Your task to perform on an android device: find which apps use the phone's location Image 0: 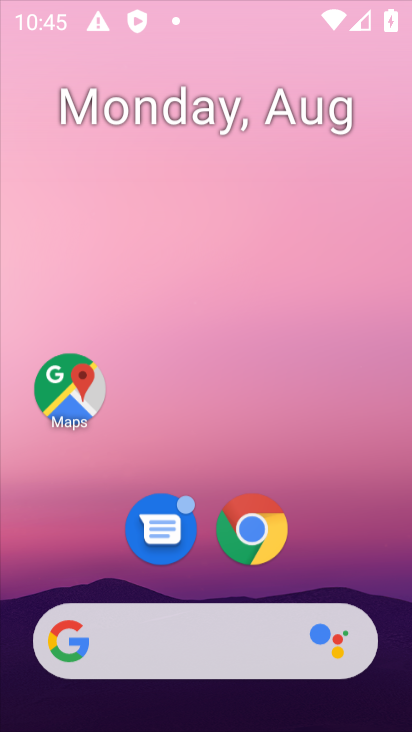
Step 0: click (225, 139)
Your task to perform on an android device: find which apps use the phone's location Image 1: 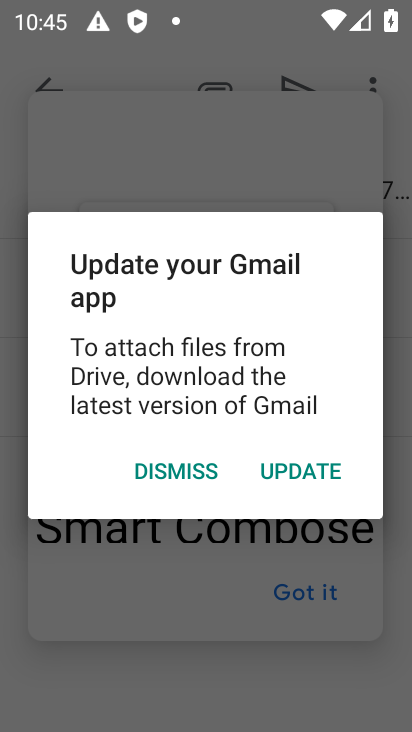
Step 1: press back button
Your task to perform on an android device: find which apps use the phone's location Image 2: 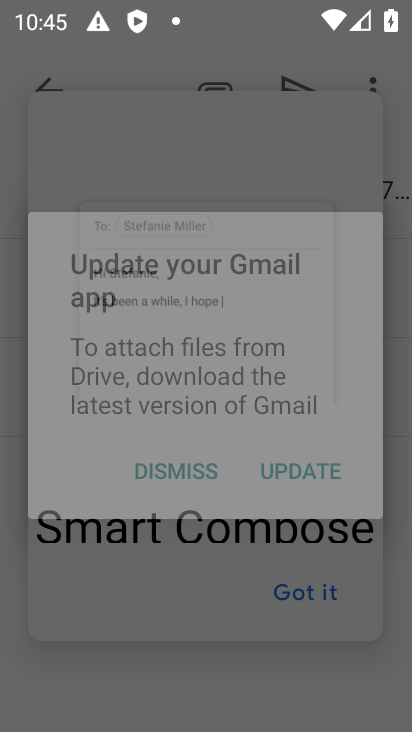
Step 2: press back button
Your task to perform on an android device: find which apps use the phone's location Image 3: 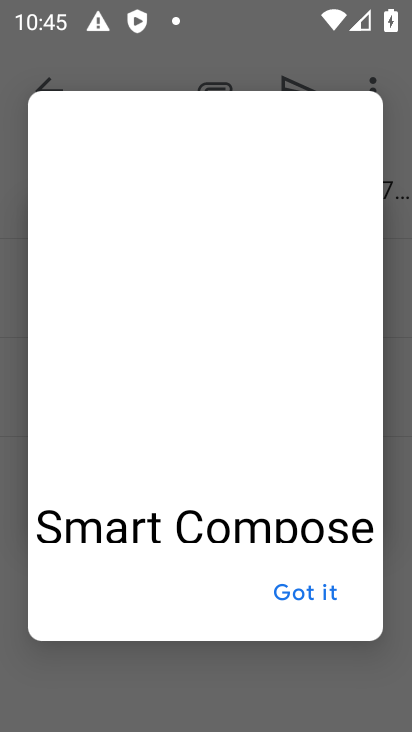
Step 3: click (294, 593)
Your task to perform on an android device: find which apps use the phone's location Image 4: 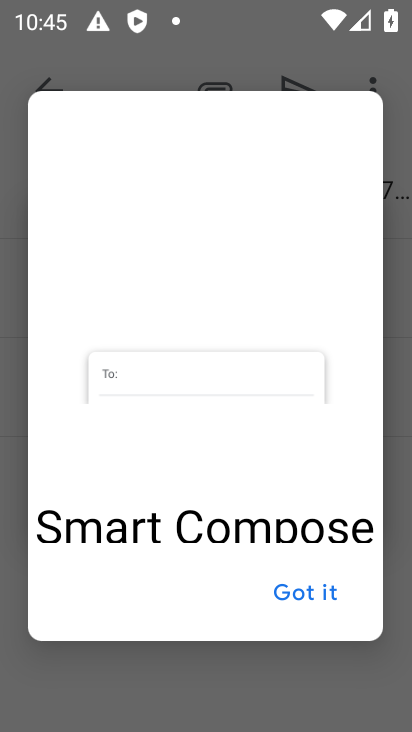
Step 4: click (301, 587)
Your task to perform on an android device: find which apps use the phone's location Image 5: 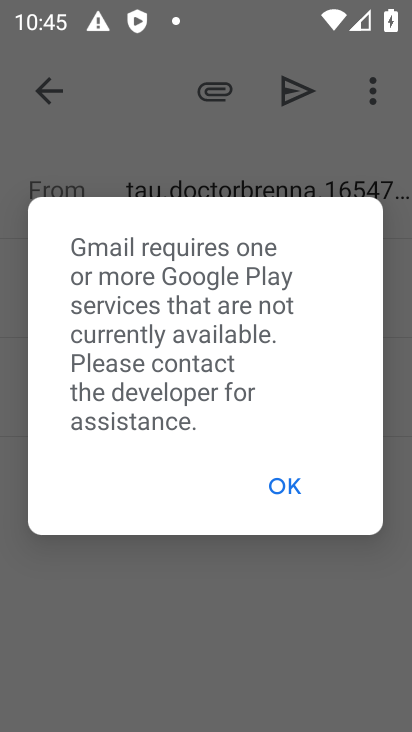
Step 5: click (285, 483)
Your task to perform on an android device: find which apps use the phone's location Image 6: 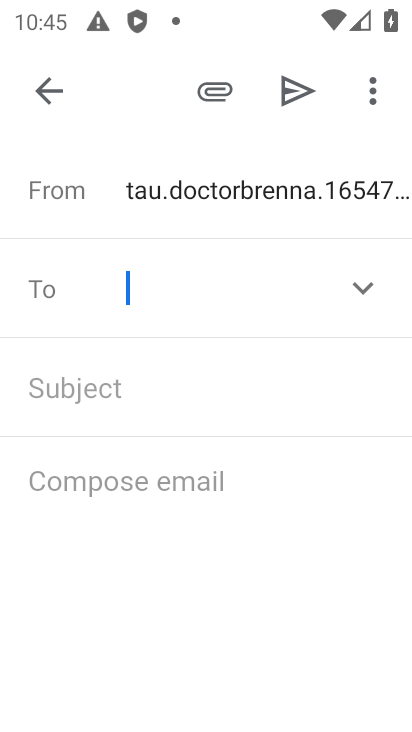
Step 6: click (62, 88)
Your task to perform on an android device: find which apps use the phone's location Image 7: 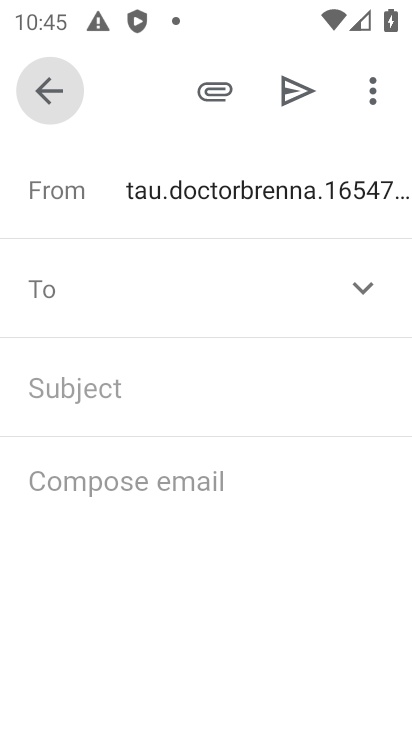
Step 7: click (56, 92)
Your task to perform on an android device: find which apps use the phone's location Image 8: 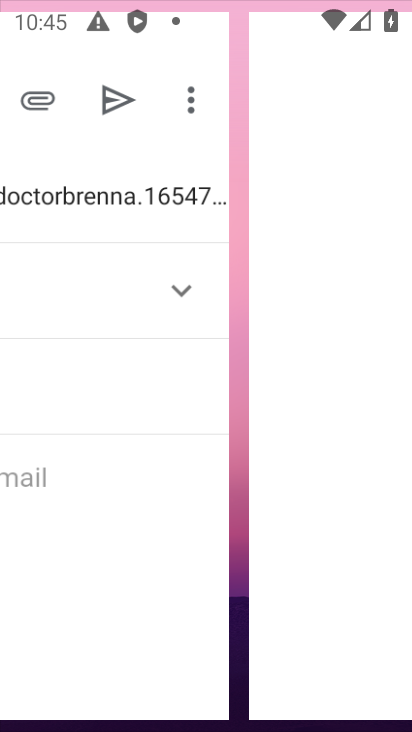
Step 8: click (55, 93)
Your task to perform on an android device: find which apps use the phone's location Image 9: 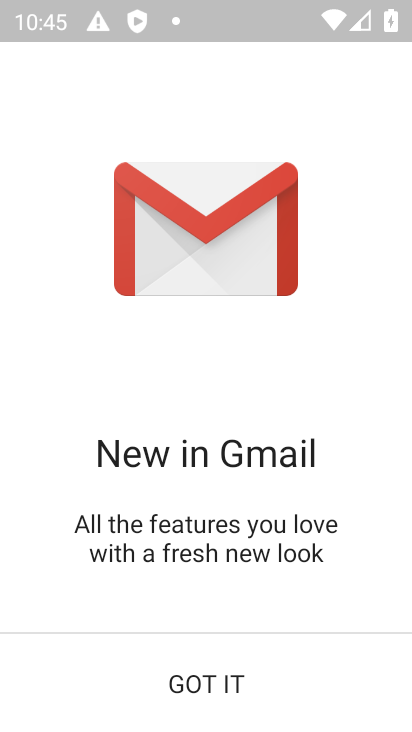
Step 9: click (164, 705)
Your task to perform on an android device: find which apps use the phone's location Image 10: 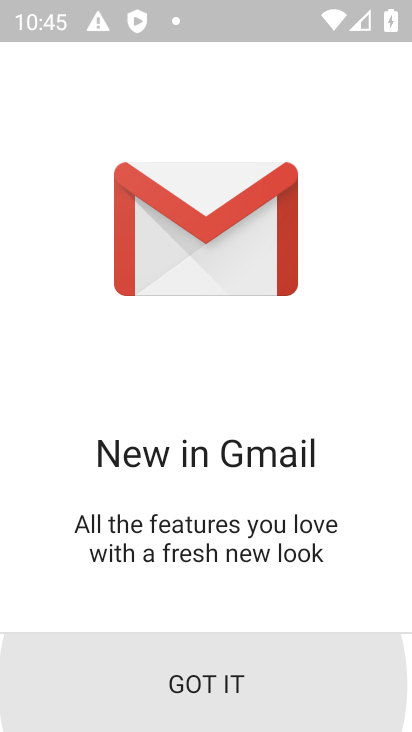
Step 10: click (187, 682)
Your task to perform on an android device: find which apps use the phone's location Image 11: 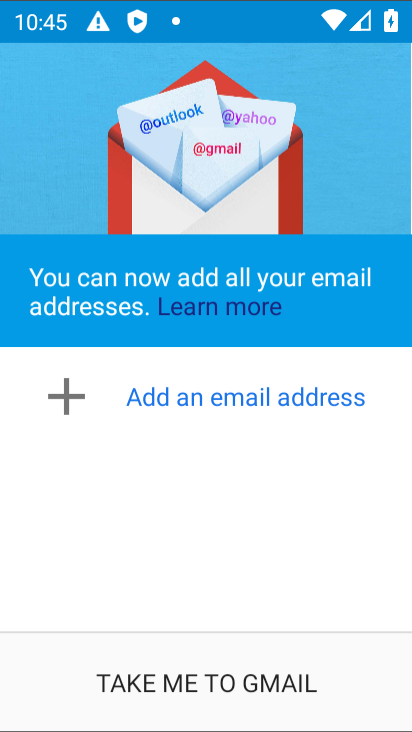
Step 11: click (193, 678)
Your task to perform on an android device: find which apps use the phone's location Image 12: 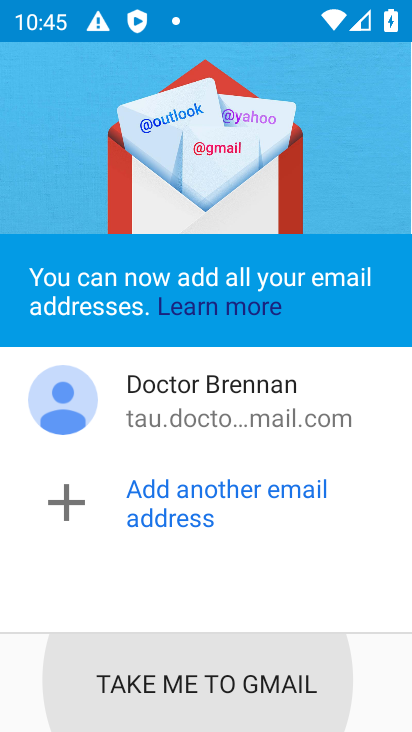
Step 12: click (193, 678)
Your task to perform on an android device: find which apps use the phone's location Image 13: 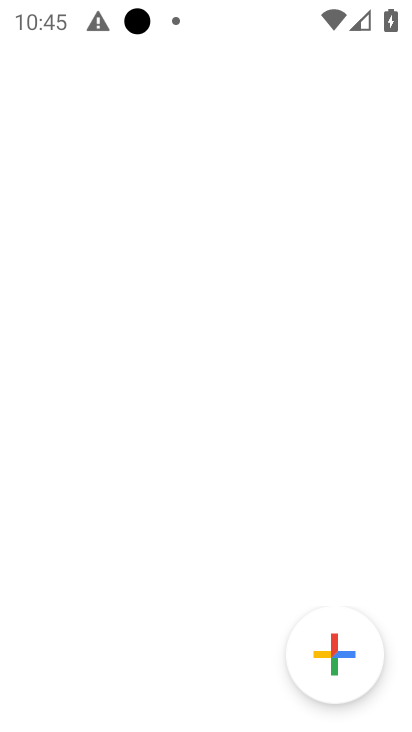
Step 13: press back button
Your task to perform on an android device: find which apps use the phone's location Image 14: 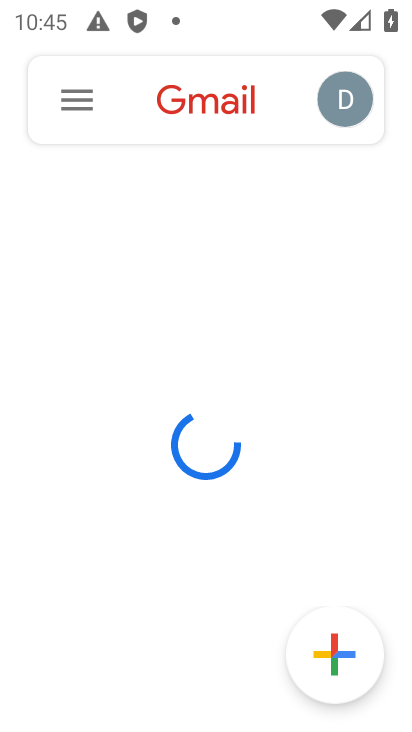
Step 14: press back button
Your task to perform on an android device: find which apps use the phone's location Image 15: 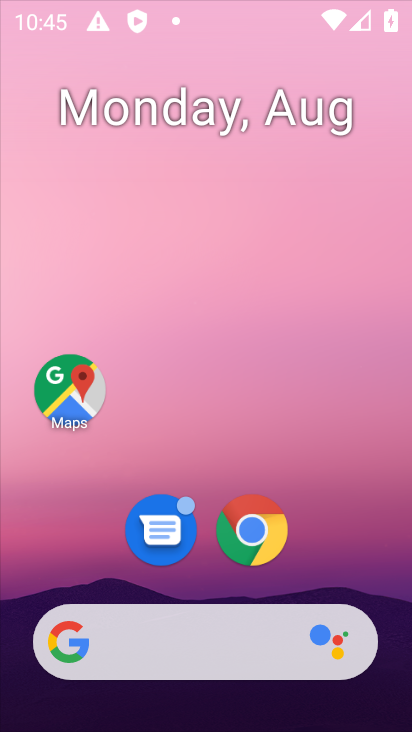
Step 15: press back button
Your task to perform on an android device: find which apps use the phone's location Image 16: 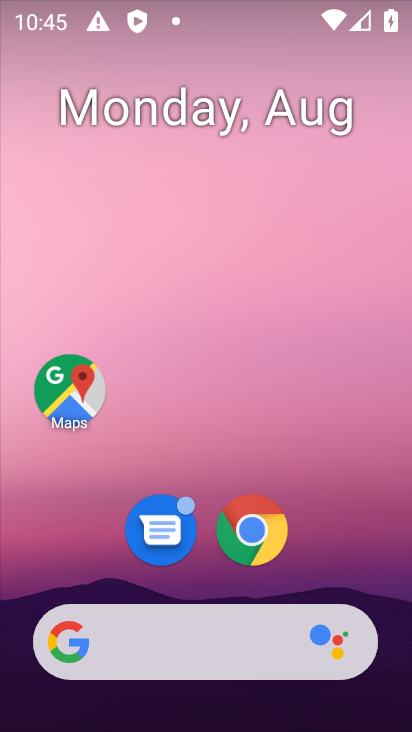
Step 16: drag from (218, 624) to (213, 122)
Your task to perform on an android device: find which apps use the phone's location Image 17: 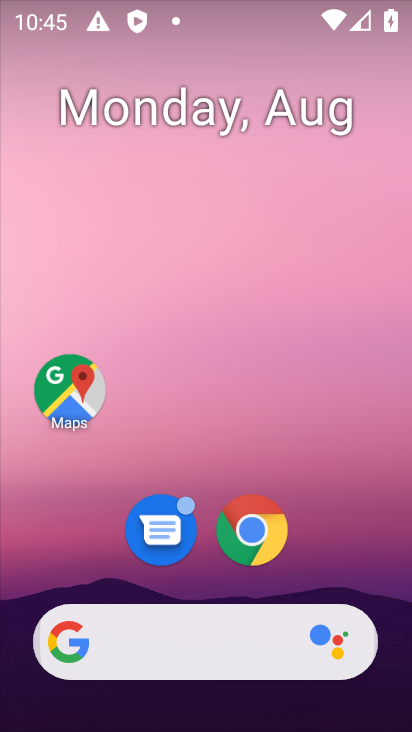
Step 17: drag from (250, 489) to (250, 120)
Your task to perform on an android device: find which apps use the phone's location Image 18: 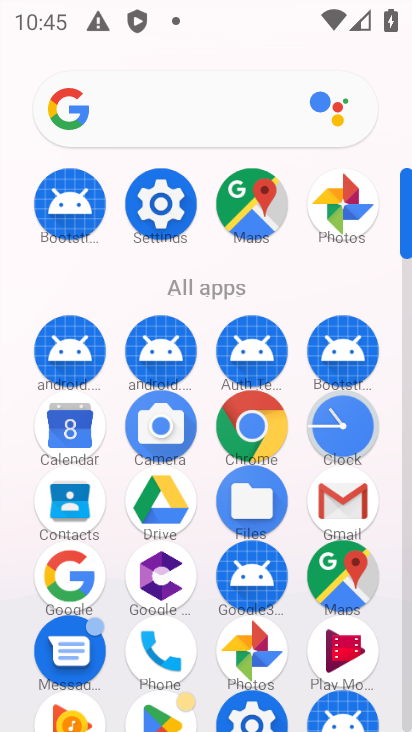
Step 18: click (155, 189)
Your task to perform on an android device: find which apps use the phone's location Image 19: 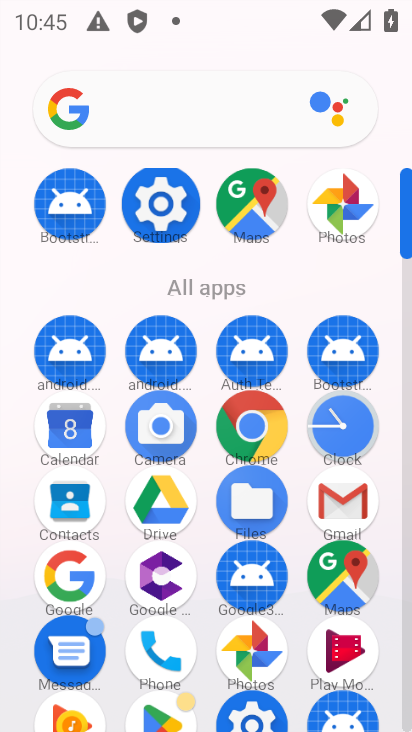
Step 19: click (156, 192)
Your task to perform on an android device: find which apps use the phone's location Image 20: 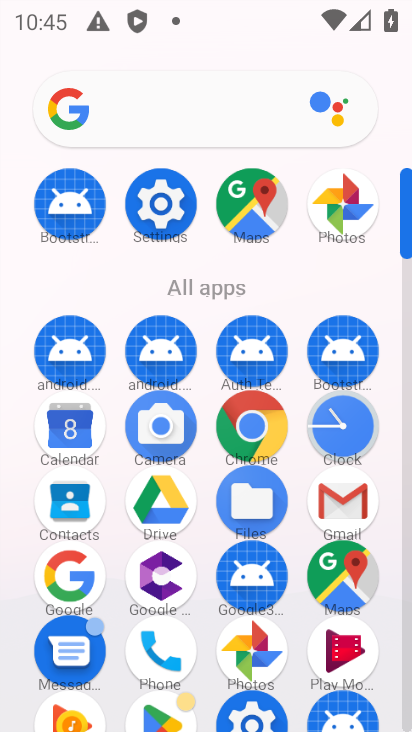
Step 20: click (149, 210)
Your task to perform on an android device: find which apps use the phone's location Image 21: 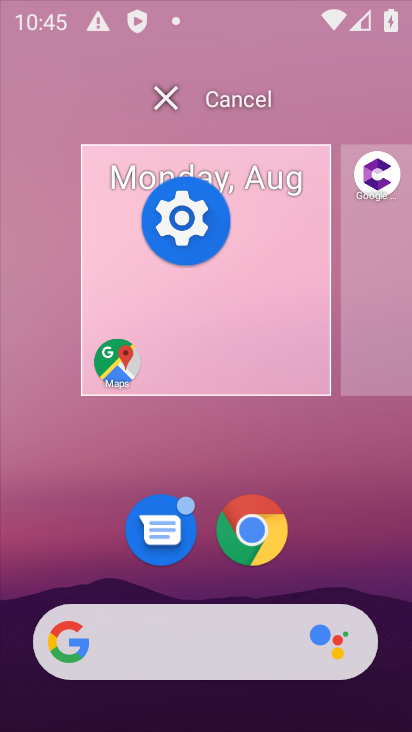
Step 21: click (174, 227)
Your task to perform on an android device: find which apps use the phone's location Image 22: 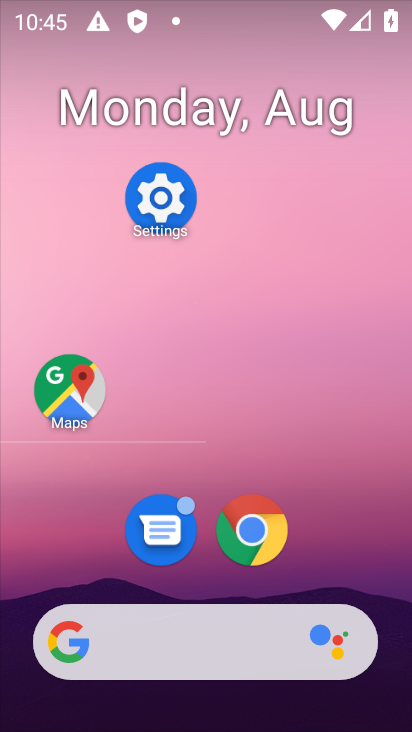
Step 22: drag from (235, 609) to (215, 189)
Your task to perform on an android device: find which apps use the phone's location Image 23: 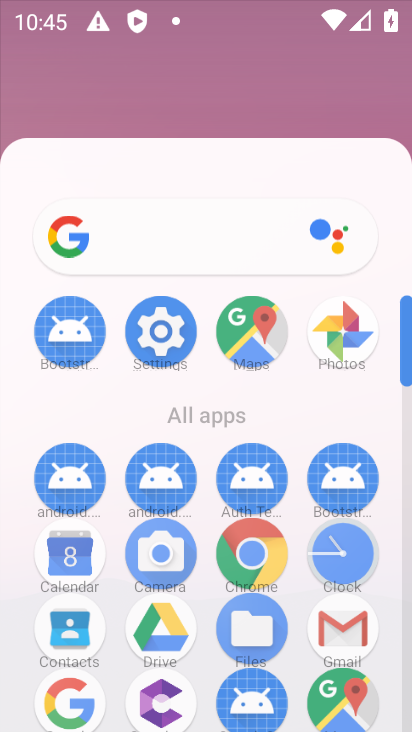
Step 23: drag from (231, 498) to (164, 133)
Your task to perform on an android device: find which apps use the phone's location Image 24: 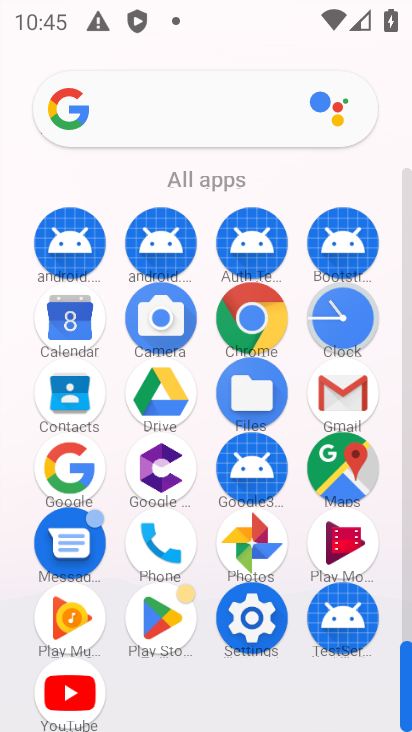
Step 24: click (252, 635)
Your task to perform on an android device: find which apps use the phone's location Image 25: 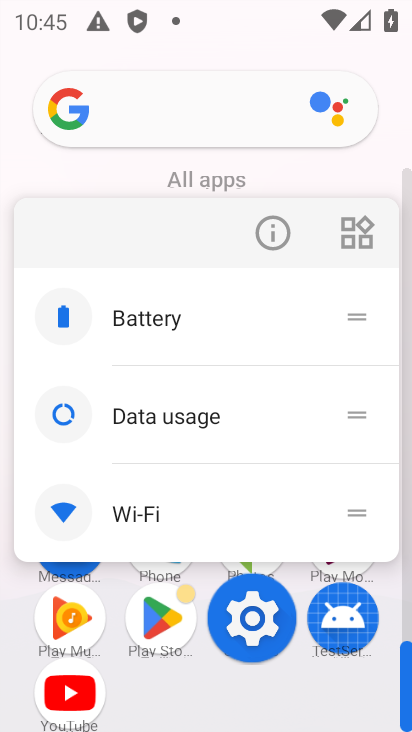
Step 25: click (253, 619)
Your task to perform on an android device: find which apps use the phone's location Image 26: 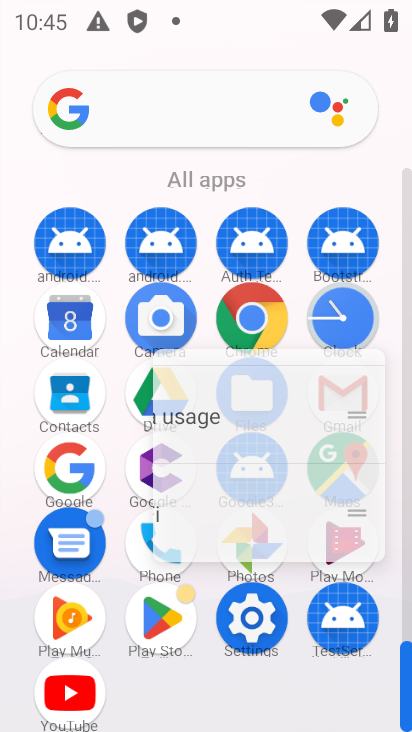
Step 26: click (256, 619)
Your task to perform on an android device: find which apps use the phone's location Image 27: 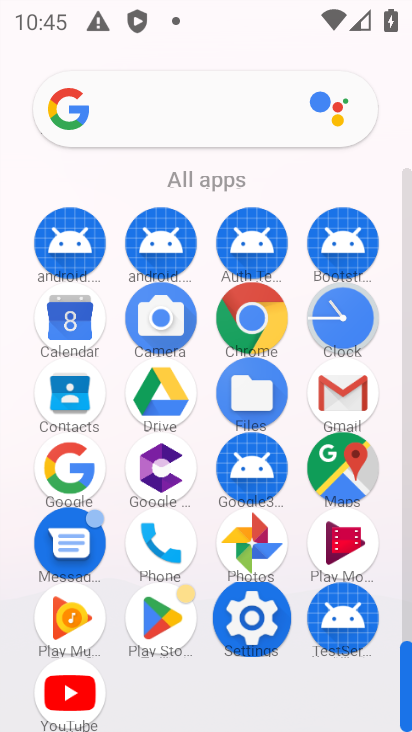
Step 27: click (264, 618)
Your task to perform on an android device: find which apps use the phone's location Image 28: 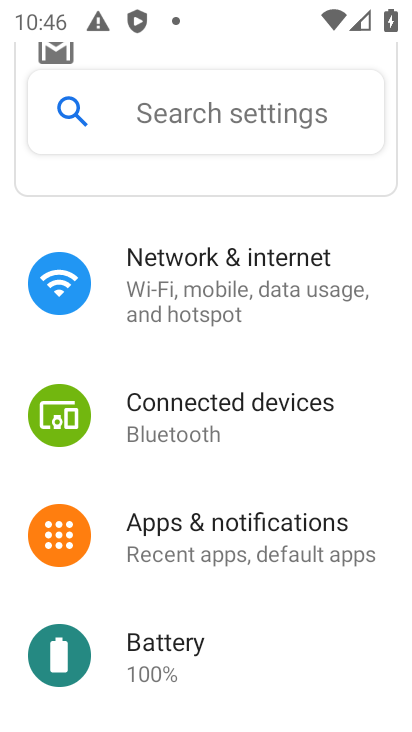
Step 28: drag from (204, 655) to (223, 252)
Your task to perform on an android device: find which apps use the phone's location Image 29: 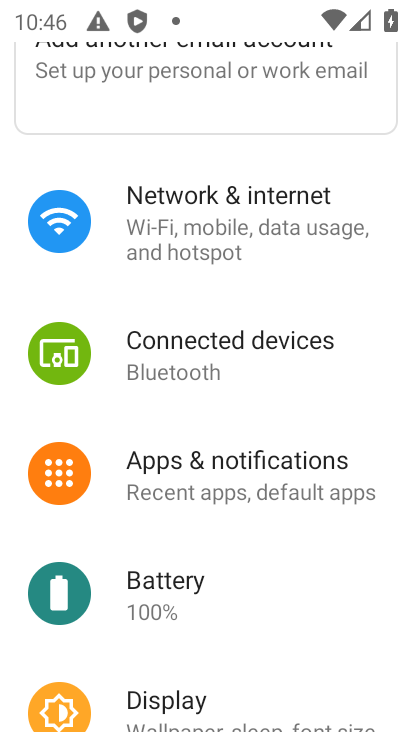
Step 29: drag from (220, 528) to (206, 322)
Your task to perform on an android device: find which apps use the phone's location Image 30: 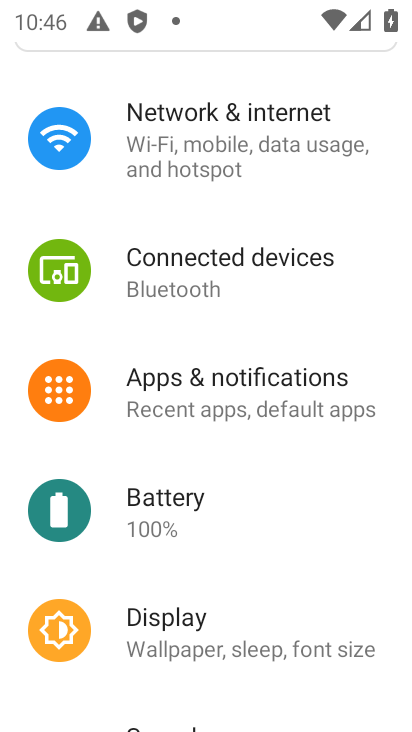
Step 30: click (188, 338)
Your task to perform on an android device: find which apps use the phone's location Image 31: 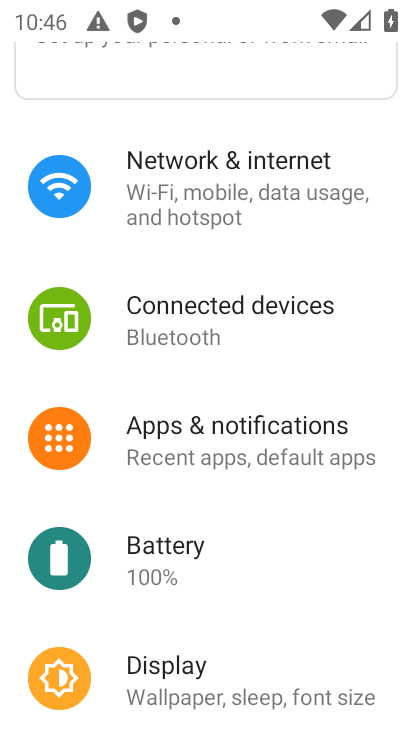
Step 31: drag from (180, 636) to (220, 255)
Your task to perform on an android device: find which apps use the phone's location Image 32: 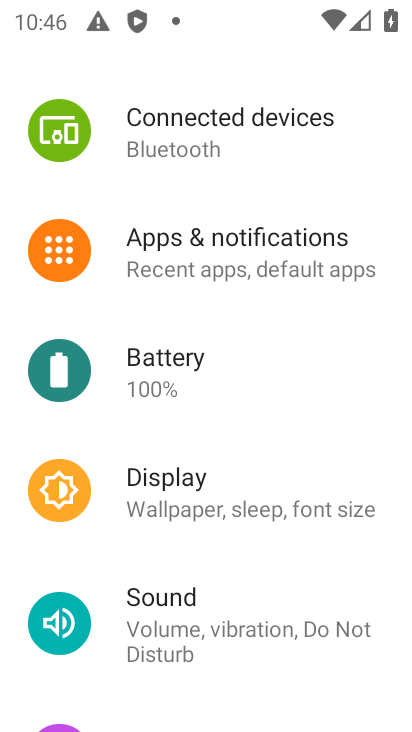
Step 32: drag from (166, 514) to (174, 246)
Your task to perform on an android device: find which apps use the phone's location Image 33: 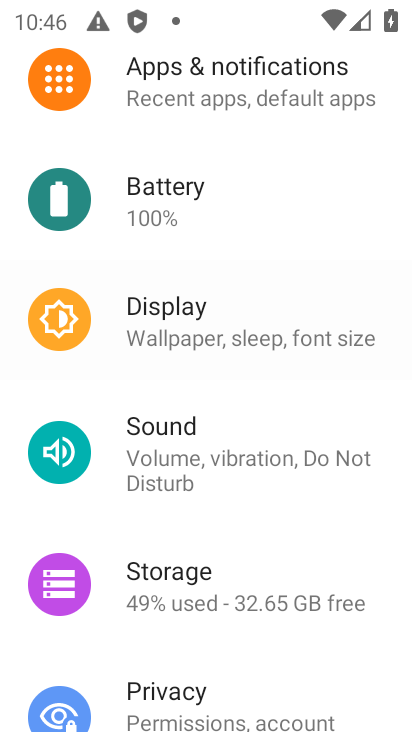
Step 33: drag from (187, 473) to (223, 219)
Your task to perform on an android device: find which apps use the phone's location Image 34: 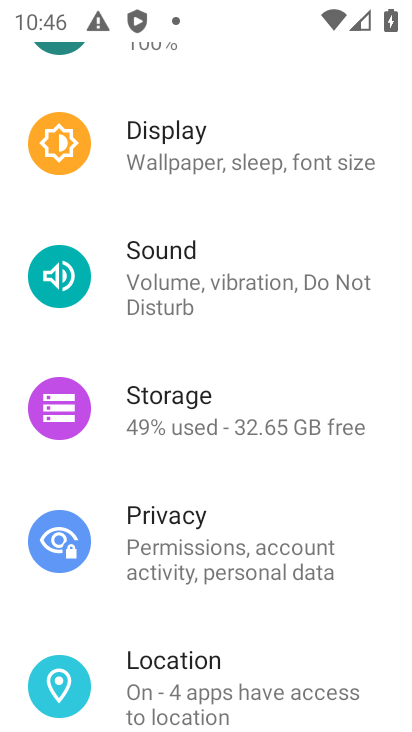
Step 34: drag from (208, 503) to (210, 284)
Your task to perform on an android device: find which apps use the phone's location Image 35: 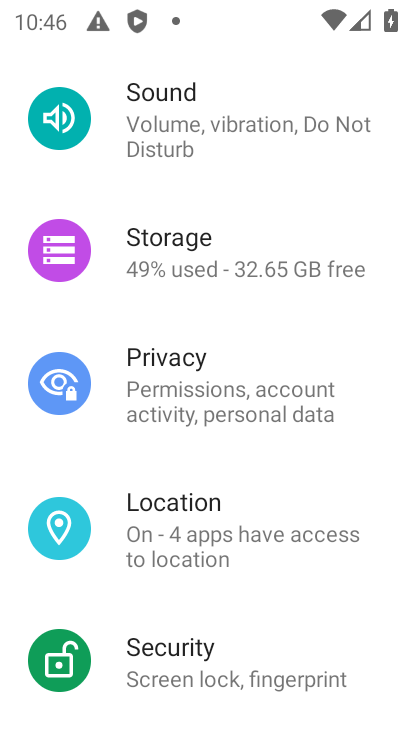
Step 35: drag from (198, 497) to (178, 216)
Your task to perform on an android device: find which apps use the phone's location Image 36: 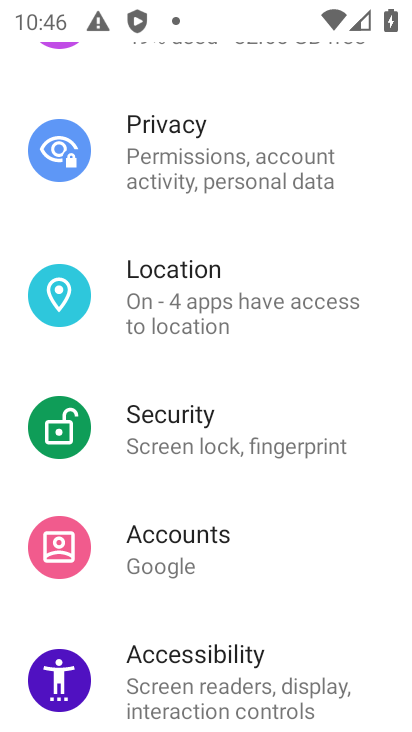
Step 36: drag from (188, 528) to (176, 272)
Your task to perform on an android device: find which apps use the phone's location Image 37: 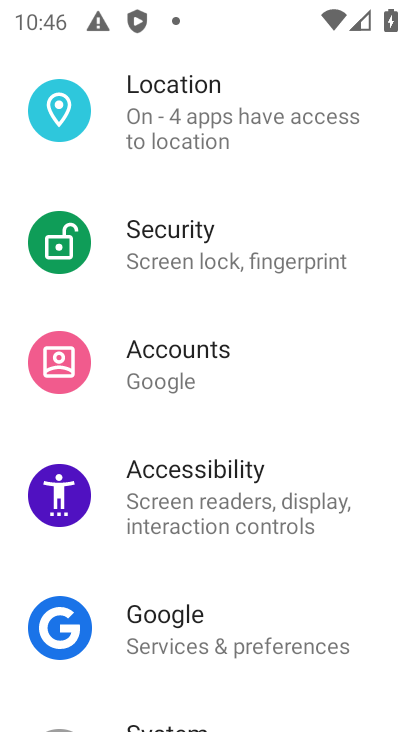
Step 37: drag from (187, 506) to (204, 207)
Your task to perform on an android device: find which apps use the phone's location Image 38: 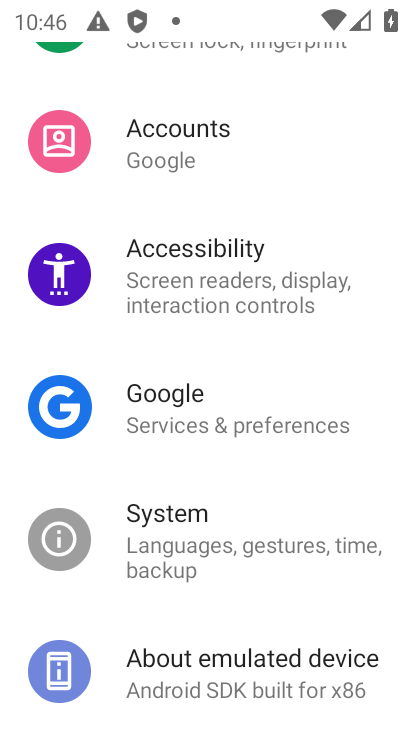
Step 38: drag from (235, 566) to (236, 290)
Your task to perform on an android device: find which apps use the phone's location Image 39: 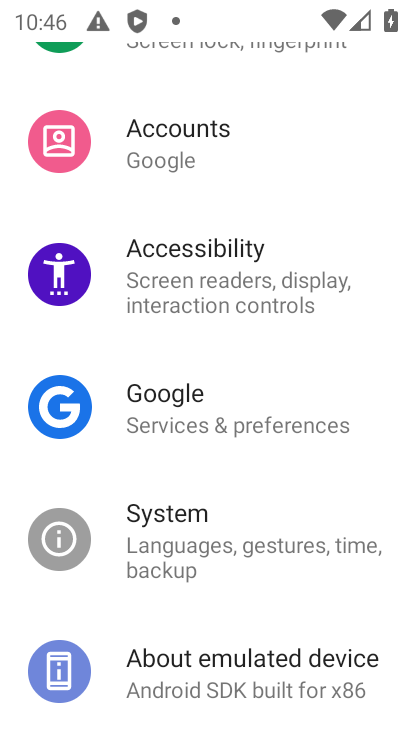
Step 39: drag from (186, 193) to (217, 483)
Your task to perform on an android device: find which apps use the phone's location Image 40: 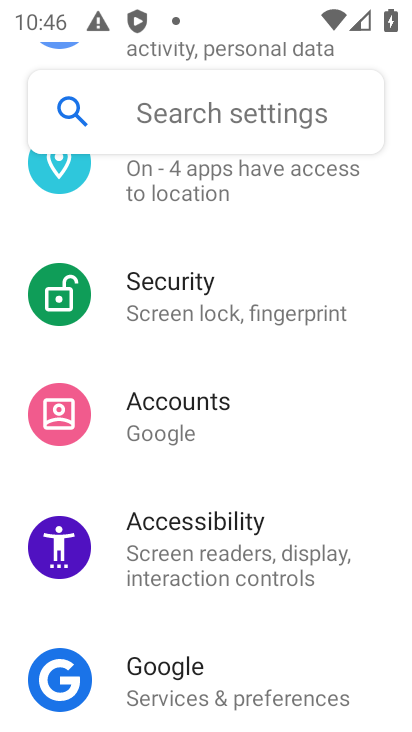
Step 40: drag from (164, 254) to (190, 463)
Your task to perform on an android device: find which apps use the phone's location Image 41: 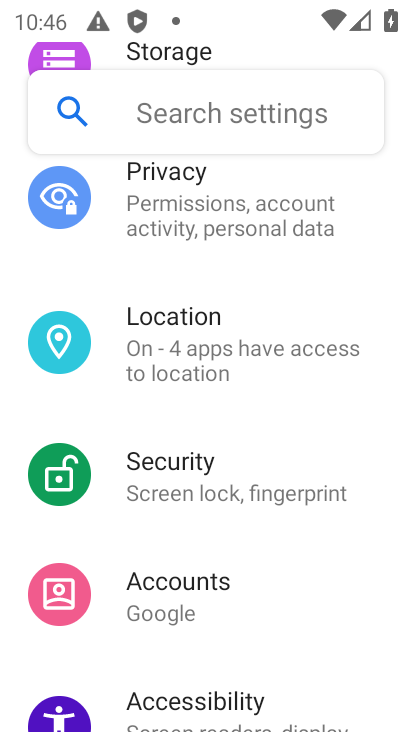
Step 41: drag from (180, 266) to (199, 455)
Your task to perform on an android device: find which apps use the phone's location Image 42: 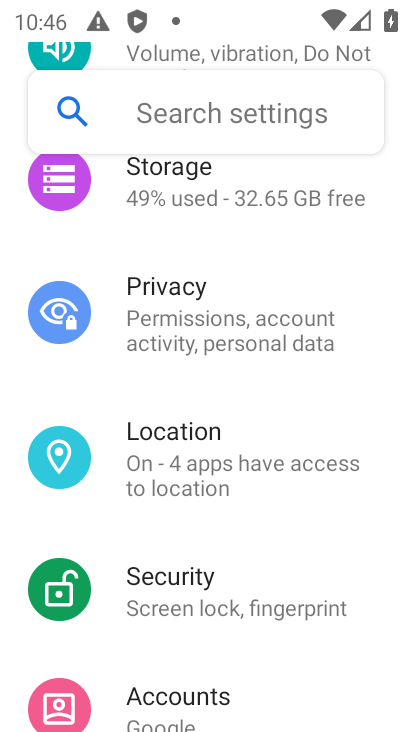
Step 42: drag from (181, 300) to (194, 440)
Your task to perform on an android device: find which apps use the phone's location Image 43: 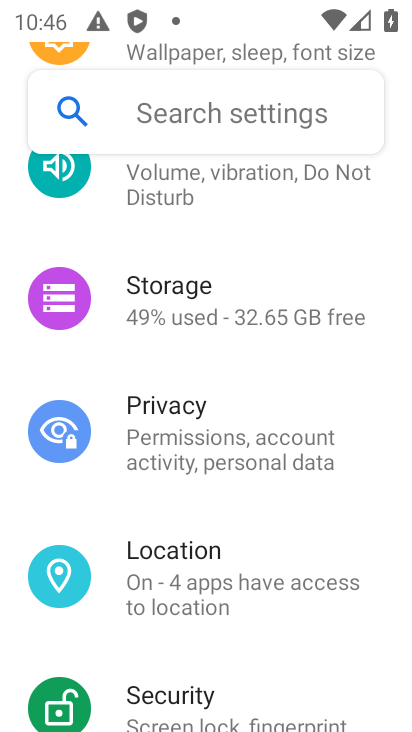
Step 43: drag from (193, 328) to (201, 536)
Your task to perform on an android device: find which apps use the phone's location Image 44: 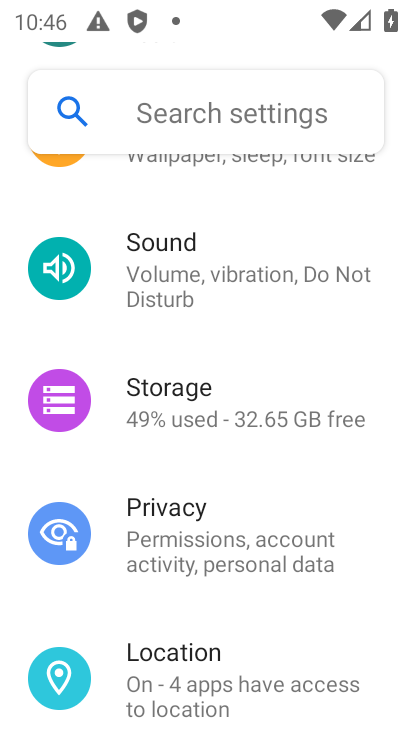
Step 44: drag from (194, 368) to (210, 595)
Your task to perform on an android device: find which apps use the phone's location Image 45: 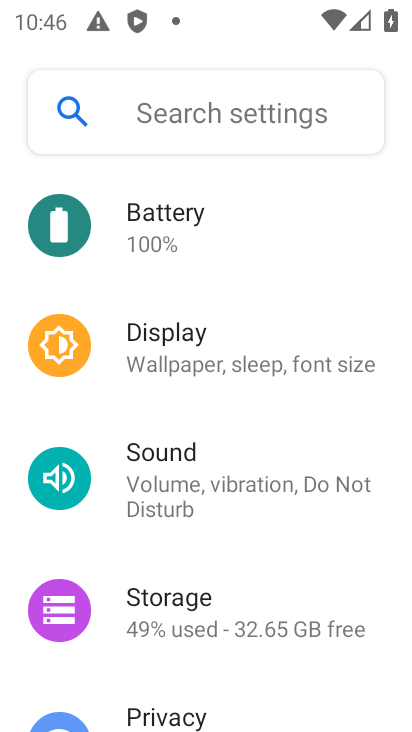
Step 45: drag from (181, 282) to (211, 444)
Your task to perform on an android device: find which apps use the phone's location Image 46: 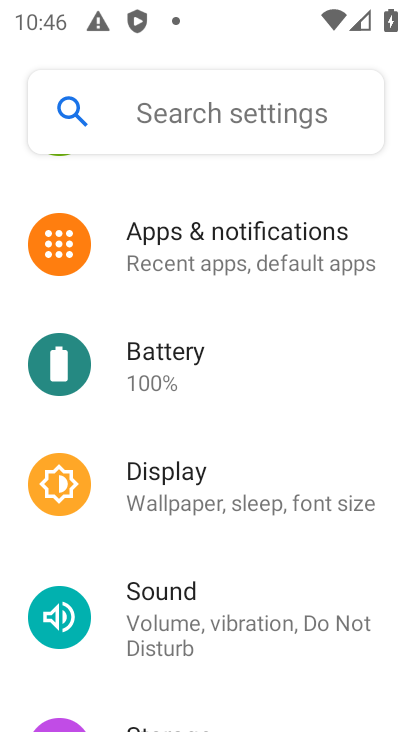
Step 46: drag from (199, 311) to (212, 466)
Your task to perform on an android device: find which apps use the phone's location Image 47: 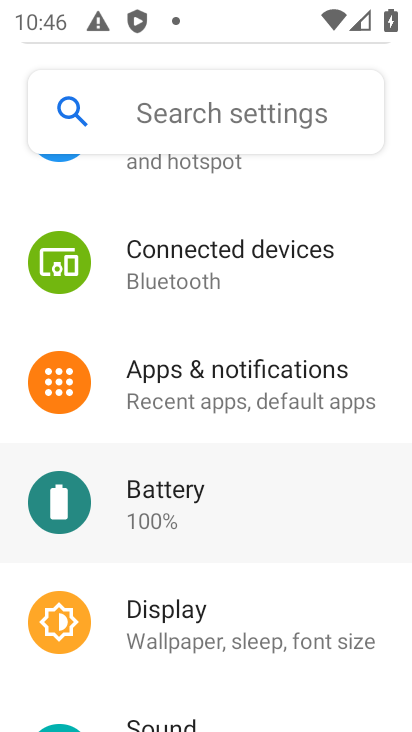
Step 47: drag from (192, 338) to (205, 538)
Your task to perform on an android device: find which apps use the phone's location Image 48: 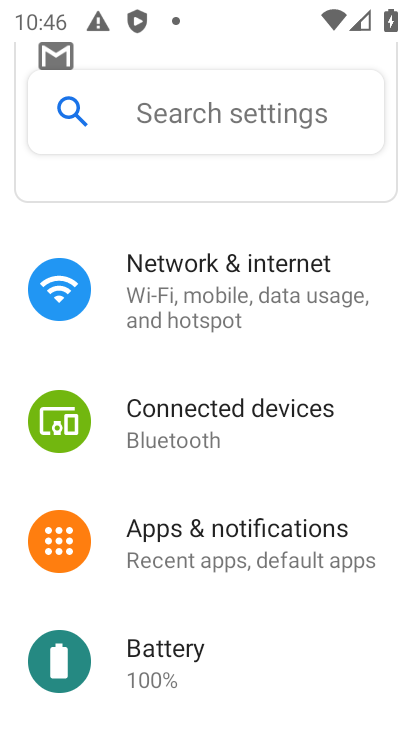
Step 48: drag from (215, 596) to (215, 389)
Your task to perform on an android device: find which apps use the phone's location Image 49: 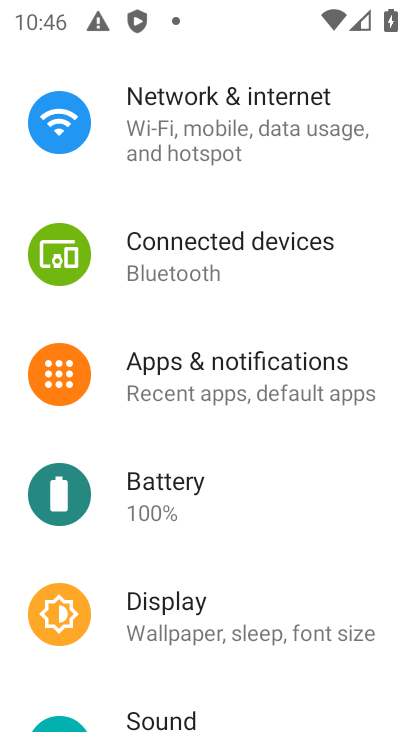
Step 49: drag from (252, 521) to (273, 292)
Your task to perform on an android device: find which apps use the phone's location Image 50: 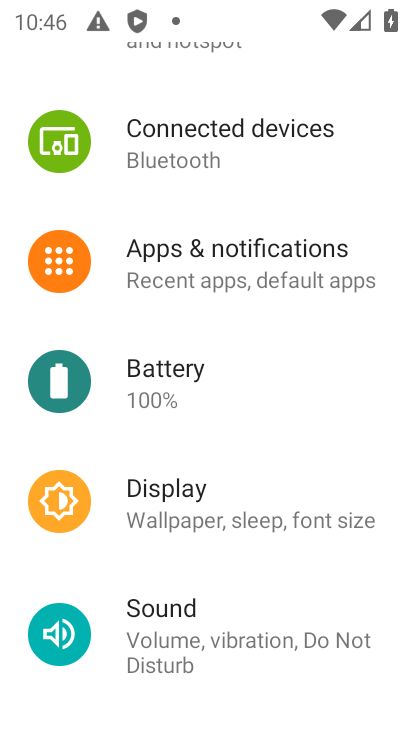
Step 50: drag from (285, 492) to (322, 294)
Your task to perform on an android device: find which apps use the phone's location Image 51: 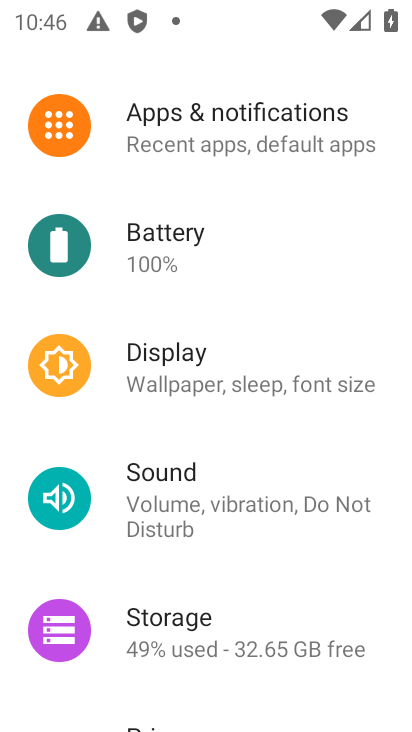
Step 51: drag from (299, 521) to (320, 347)
Your task to perform on an android device: find which apps use the phone's location Image 52: 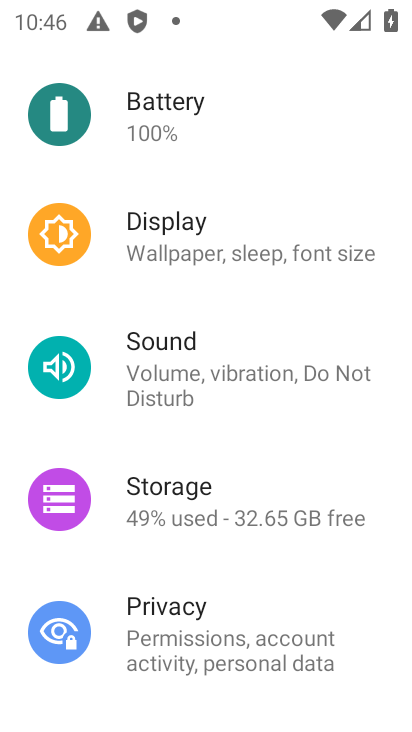
Step 52: drag from (304, 514) to (308, 275)
Your task to perform on an android device: find which apps use the phone's location Image 53: 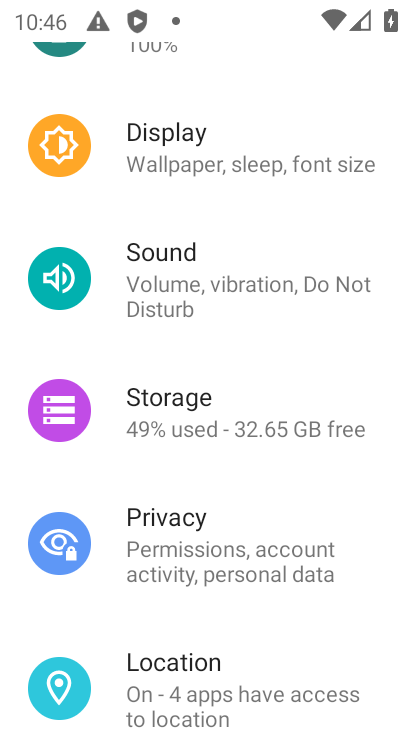
Step 53: click (172, 670)
Your task to perform on an android device: find which apps use the phone's location Image 54: 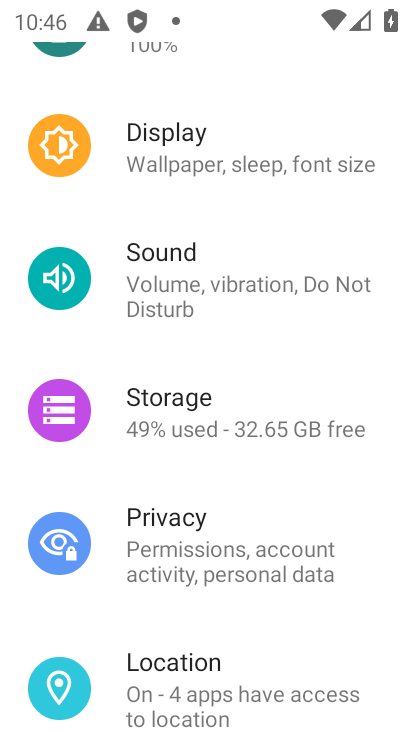
Step 54: click (172, 670)
Your task to perform on an android device: find which apps use the phone's location Image 55: 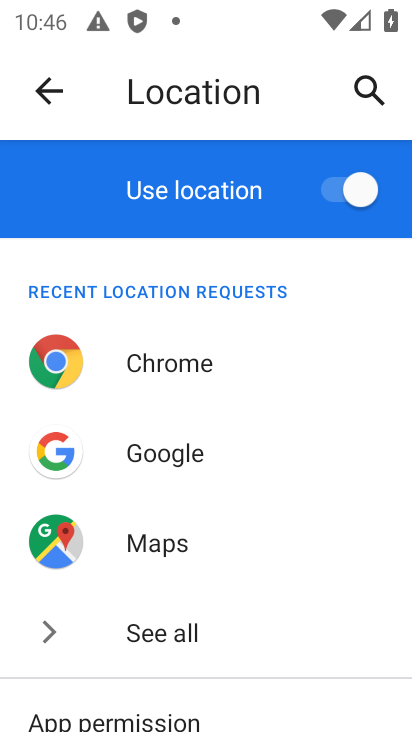
Step 55: drag from (205, 581) to (198, 316)
Your task to perform on an android device: find which apps use the phone's location Image 56: 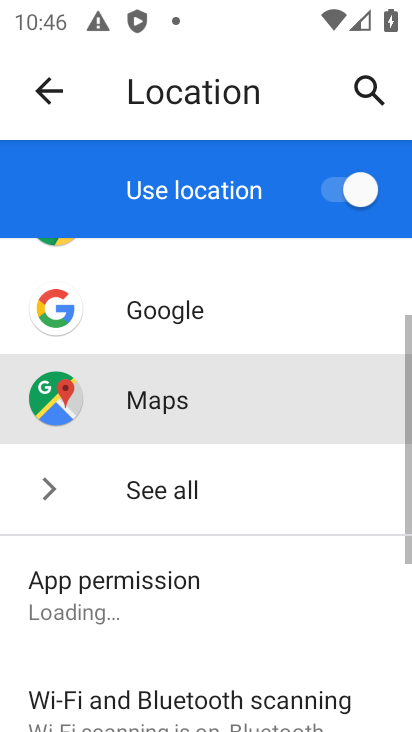
Step 56: drag from (199, 466) to (209, 334)
Your task to perform on an android device: find which apps use the phone's location Image 57: 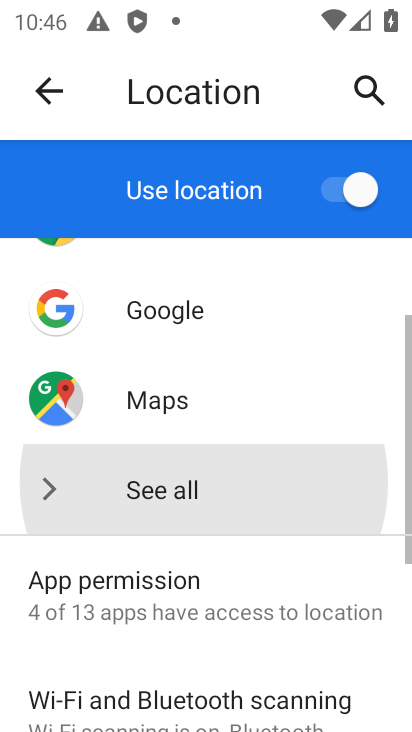
Step 57: drag from (233, 504) to (250, 338)
Your task to perform on an android device: find which apps use the phone's location Image 58: 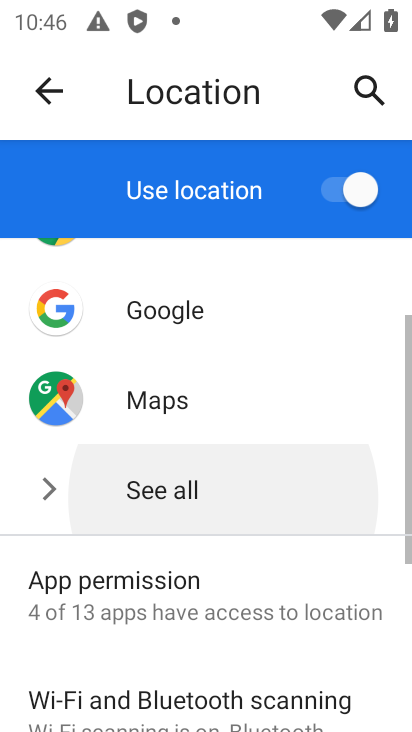
Step 58: drag from (299, 500) to (304, 346)
Your task to perform on an android device: find which apps use the phone's location Image 59: 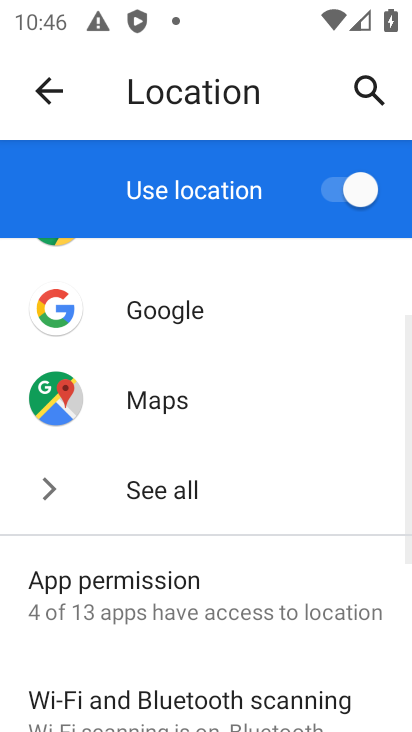
Step 59: click (129, 584)
Your task to perform on an android device: find which apps use the phone's location Image 60: 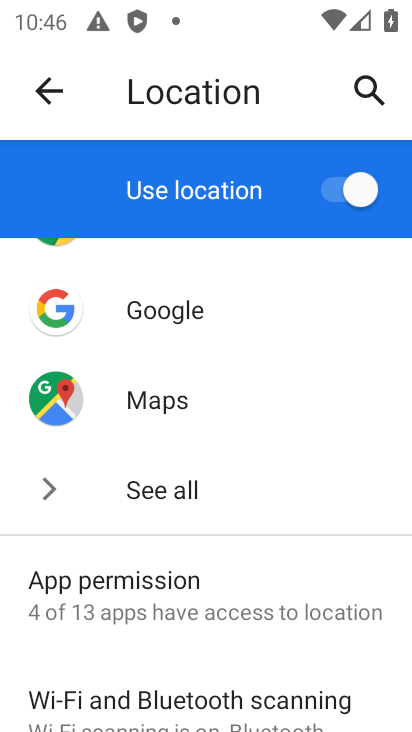
Step 60: click (129, 584)
Your task to perform on an android device: find which apps use the phone's location Image 61: 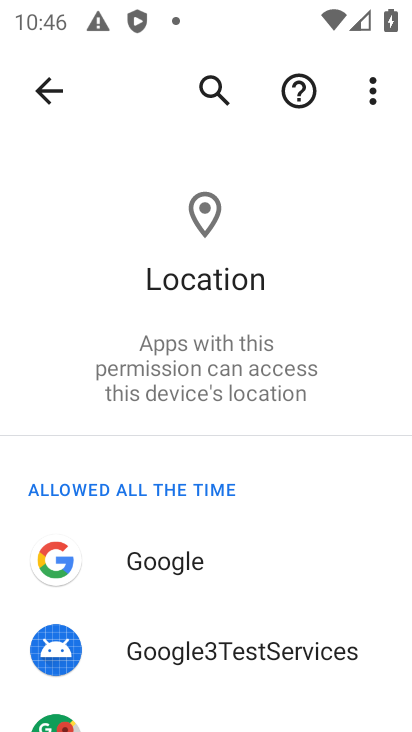
Step 61: task complete